Your task to perform on an android device: delete a single message in the gmail app Image 0: 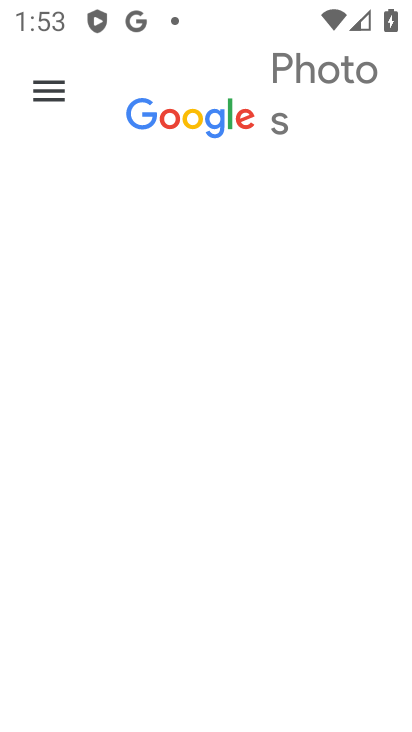
Step 0: press home button
Your task to perform on an android device: delete a single message in the gmail app Image 1: 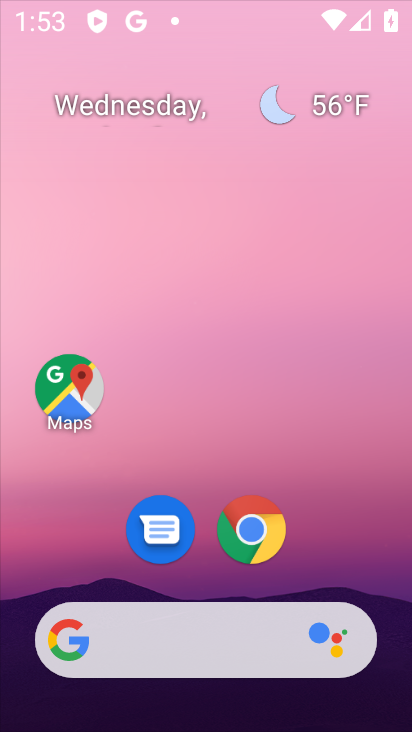
Step 1: press home button
Your task to perform on an android device: delete a single message in the gmail app Image 2: 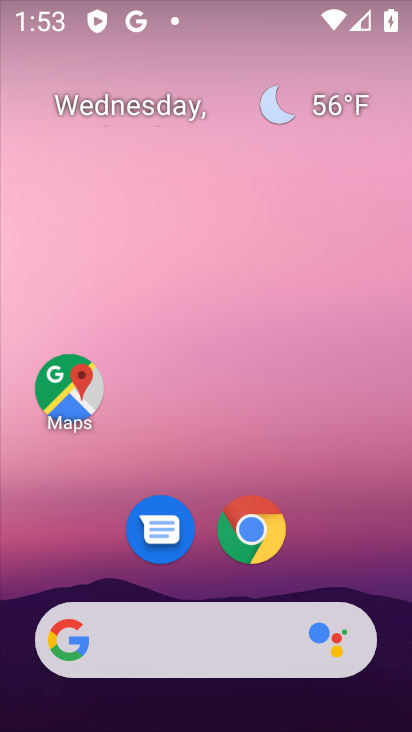
Step 2: drag from (378, 520) to (357, 163)
Your task to perform on an android device: delete a single message in the gmail app Image 3: 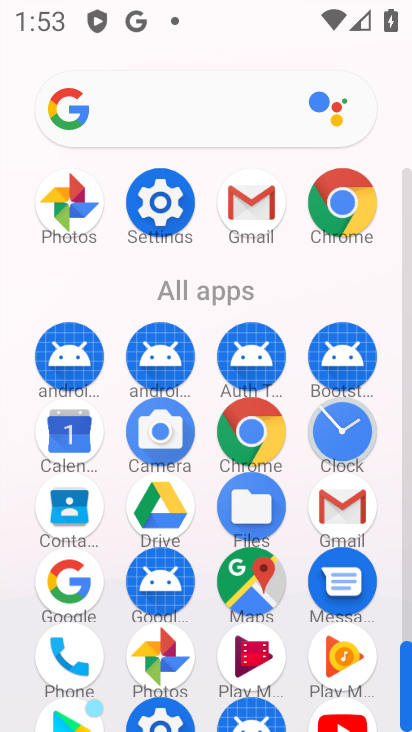
Step 3: click (271, 204)
Your task to perform on an android device: delete a single message in the gmail app Image 4: 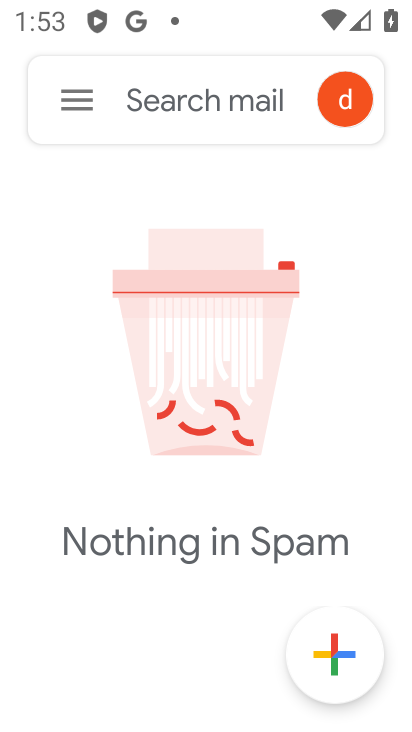
Step 4: click (84, 115)
Your task to perform on an android device: delete a single message in the gmail app Image 5: 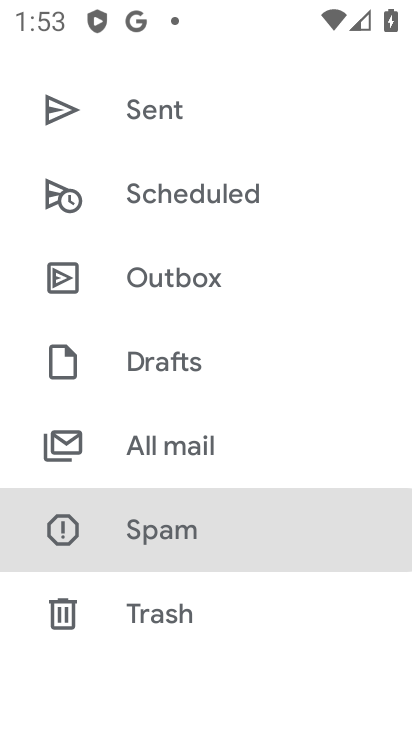
Step 5: click (135, 432)
Your task to perform on an android device: delete a single message in the gmail app Image 6: 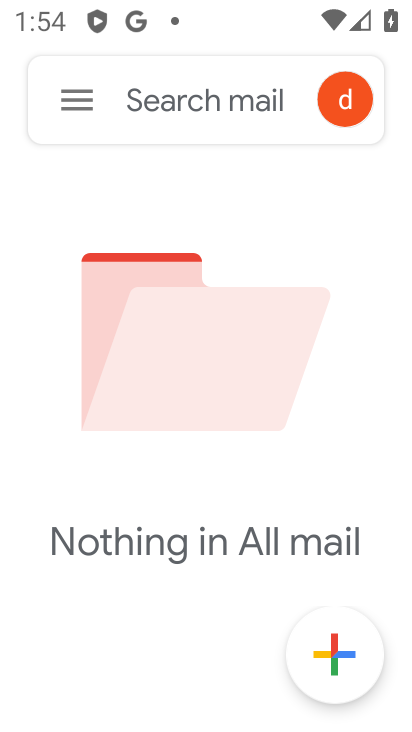
Step 6: task complete